Your task to perform on an android device: delete location history Image 0: 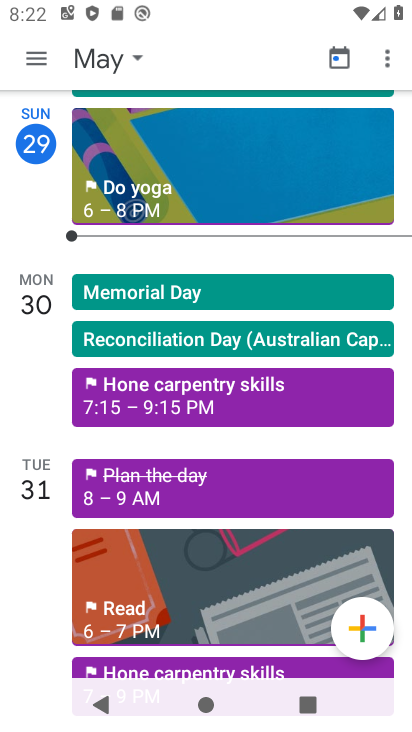
Step 0: press home button
Your task to perform on an android device: delete location history Image 1: 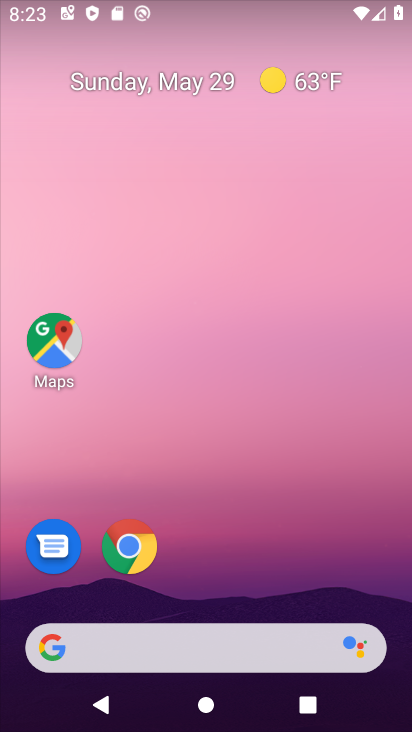
Step 1: click (59, 356)
Your task to perform on an android device: delete location history Image 2: 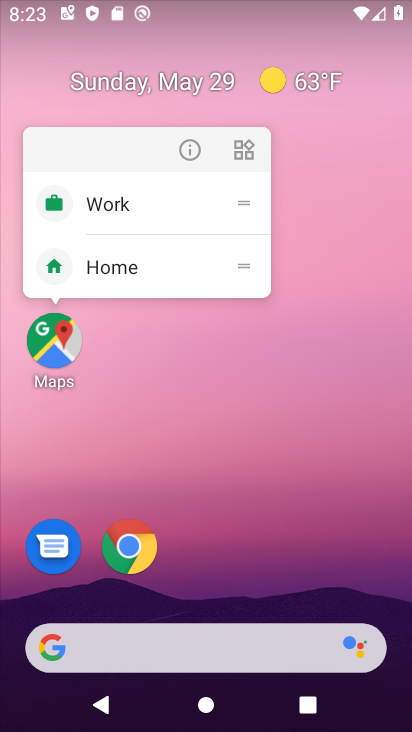
Step 2: click (55, 347)
Your task to perform on an android device: delete location history Image 3: 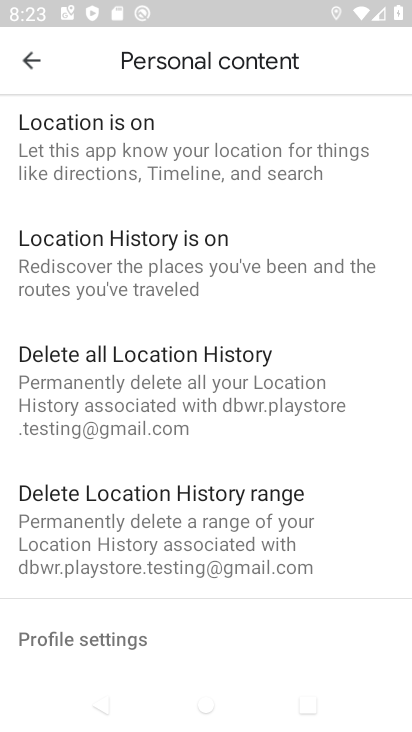
Step 3: click (133, 371)
Your task to perform on an android device: delete location history Image 4: 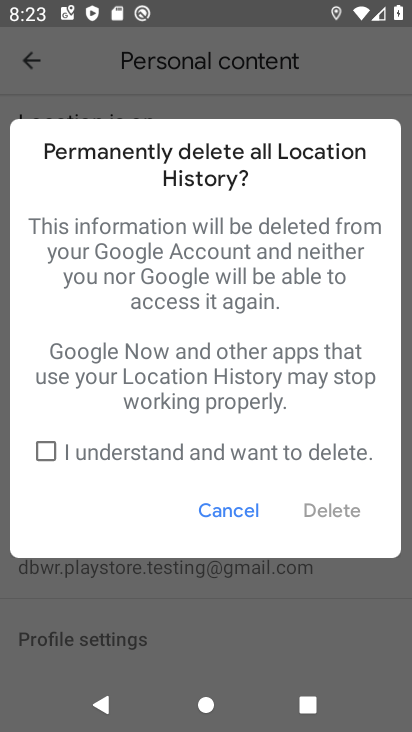
Step 4: click (44, 456)
Your task to perform on an android device: delete location history Image 5: 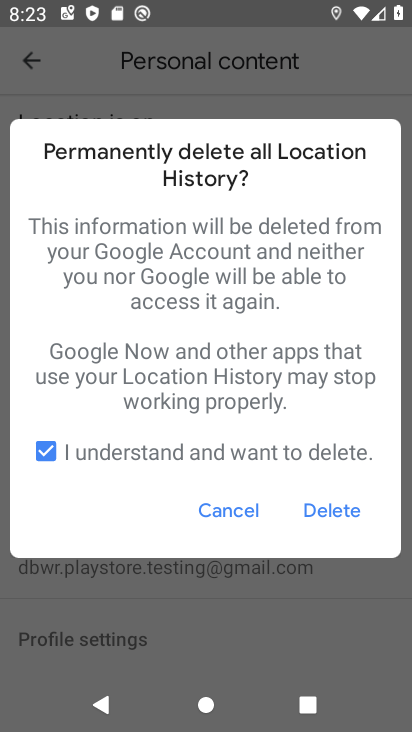
Step 5: click (341, 511)
Your task to perform on an android device: delete location history Image 6: 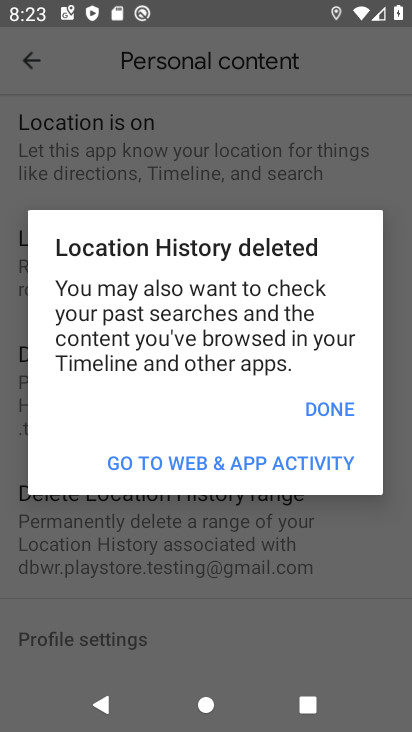
Step 6: click (337, 407)
Your task to perform on an android device: delete location history Image 7: 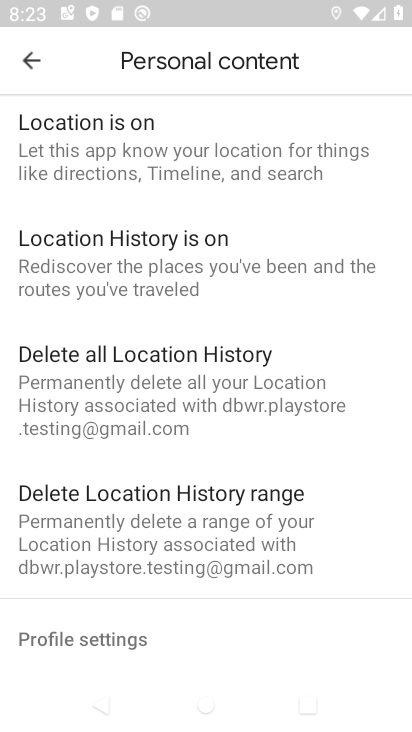
Step 7: task complete